Your task to perform on an android device: Search for "macbook" on ebay.com, select the first entry, and add it to the cart. Image 0: 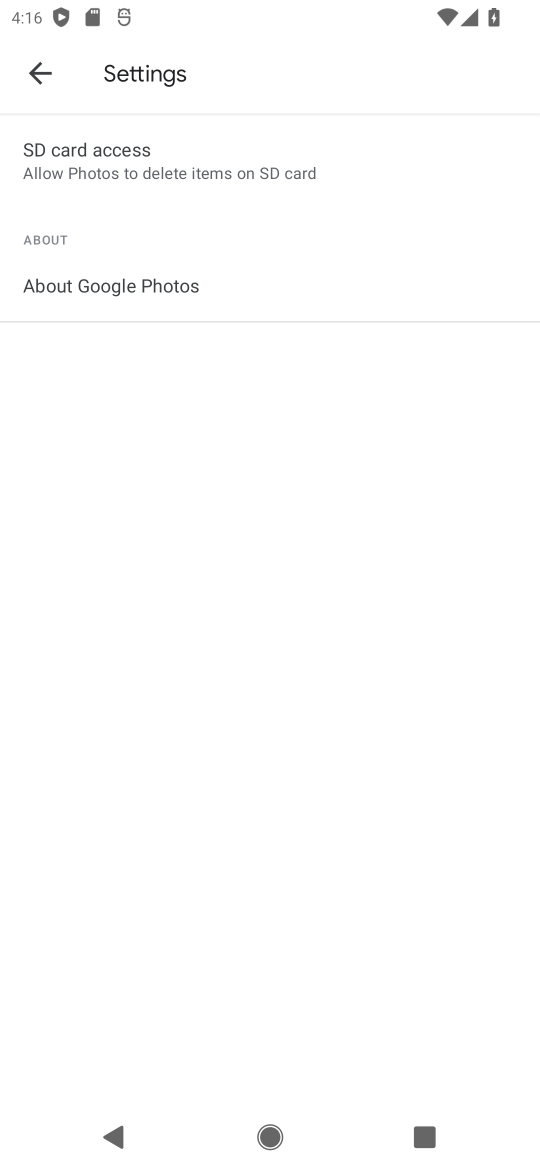
Step 0: press home button
Your task to perform on an android device: Search for "macbook" on ebay.com, select the first entry, and add it to the cart. Image 1: 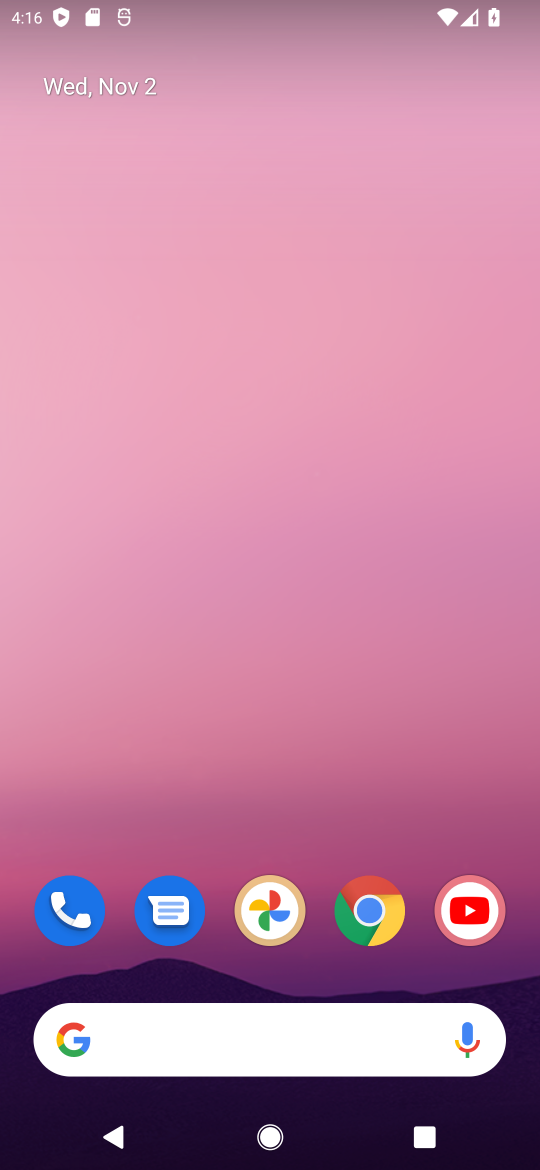
Step 1: click (371, 900)
Your task to perform on an android device: Search for "macbook" on ebay.com, select the first entry, and add it to the cart. Image 2: 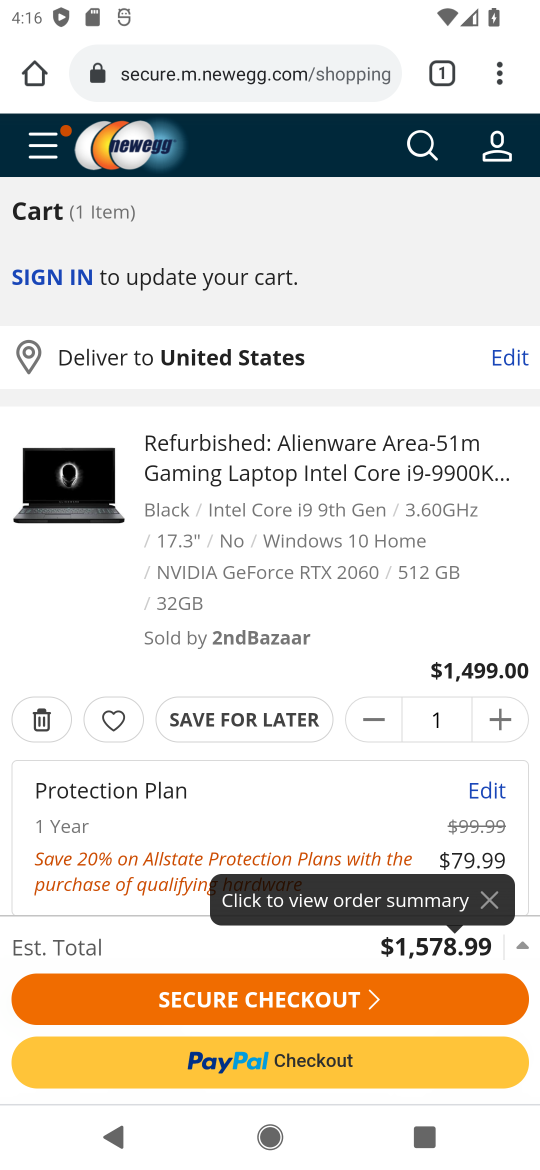
Step 2: click (238, 86)
Your task to perform on an android device: Search for "macbook" on ebay.com, select the first entry, and add it to the cart. Image 3: 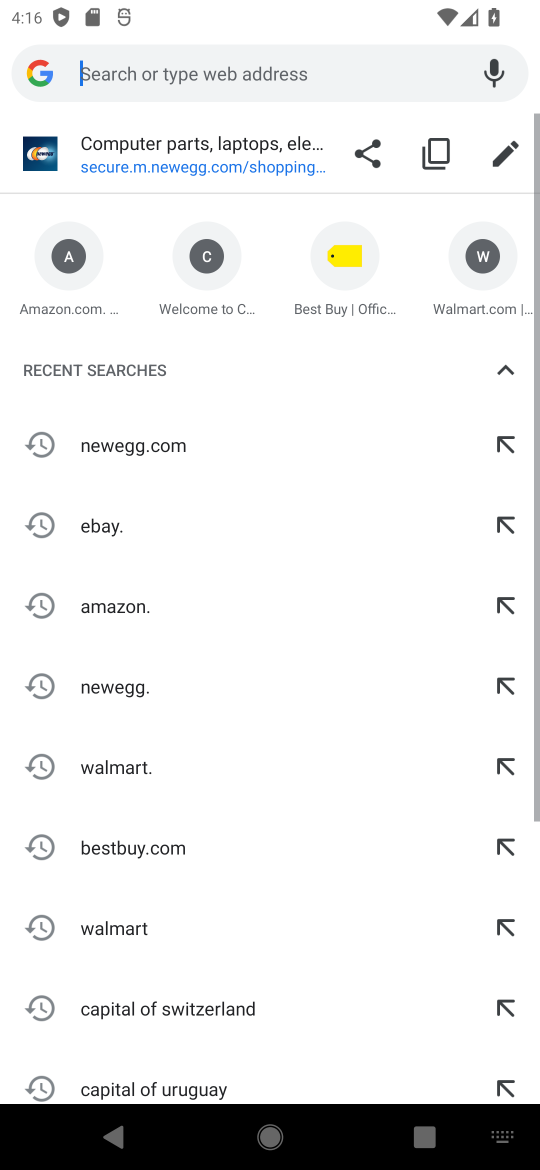
Step 3: type "ebay.com"
Your task to perform on an android device: Search for "macbook" on ebay.com, select the first entry, and add it to the cart. Image 4: 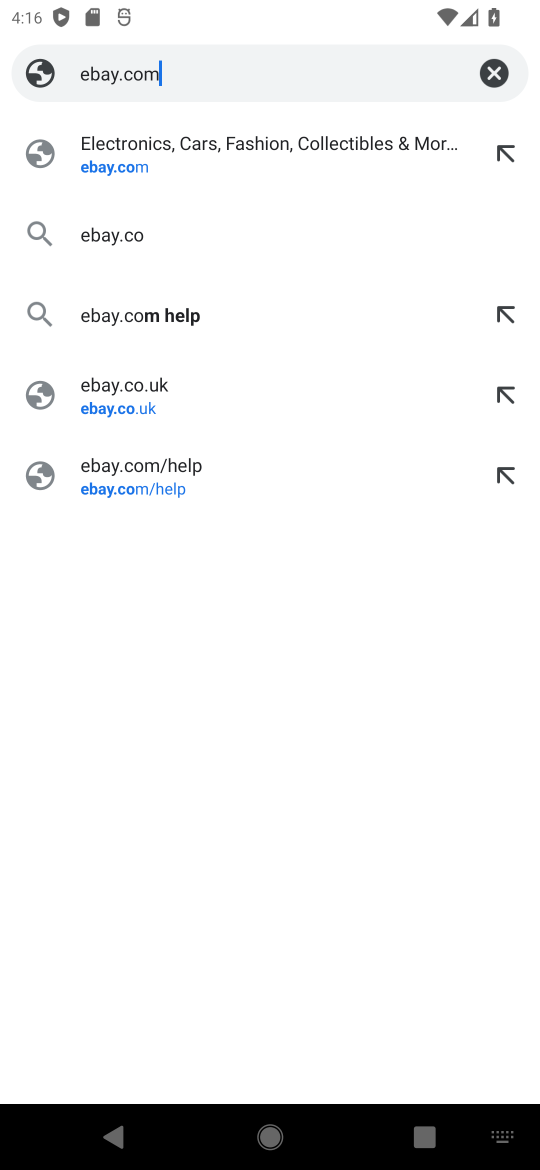
Step 4: type ""
Your task to perform on an android device: Search for "macbook" on ebay.com, select the first entry, and add it to the cart. Image 5: 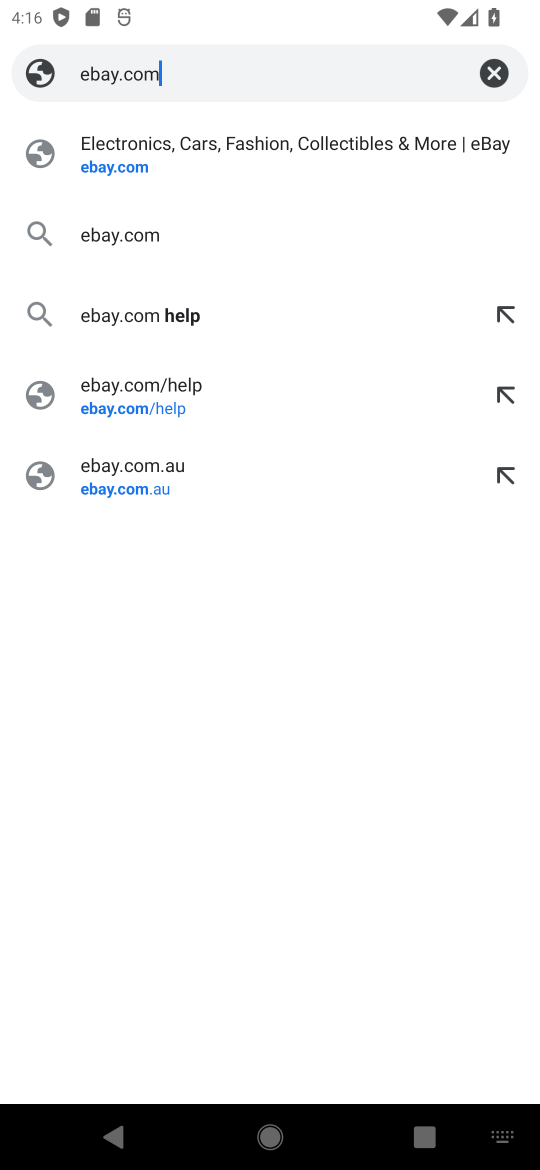
Step 5: click (105, 136)
Your task to perform on an android device: Search for "macbook" on ebay.com, select the first entry, and add it to the cart. Image 6: 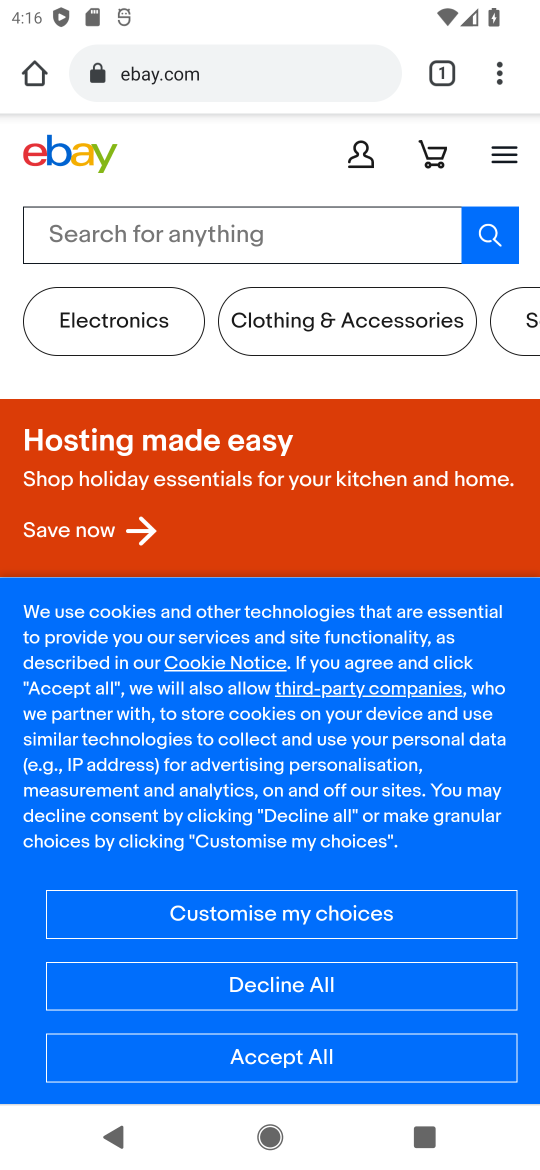
Step 6: click (331, 1063)
Your task to perform on an android device: Search for "macbook" on ebay.com, select the first entry, and add it to the cart. Image 7: 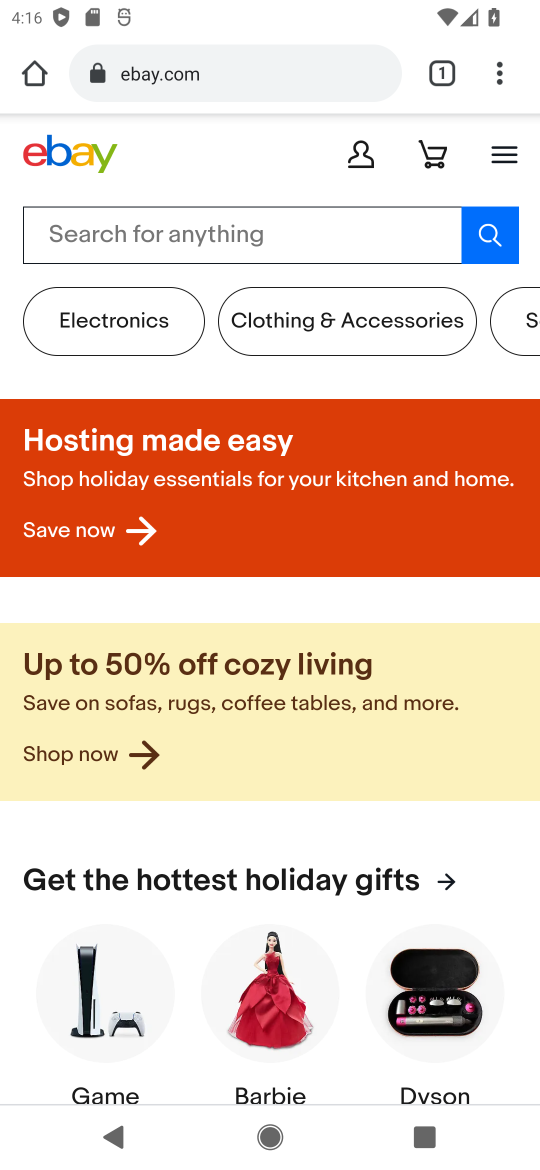
Step 7: click (278, 233)
Your task to perform on an android device: Search for "macbook" on ebay.com, select the first entry, and add it to the cart. Image 8: 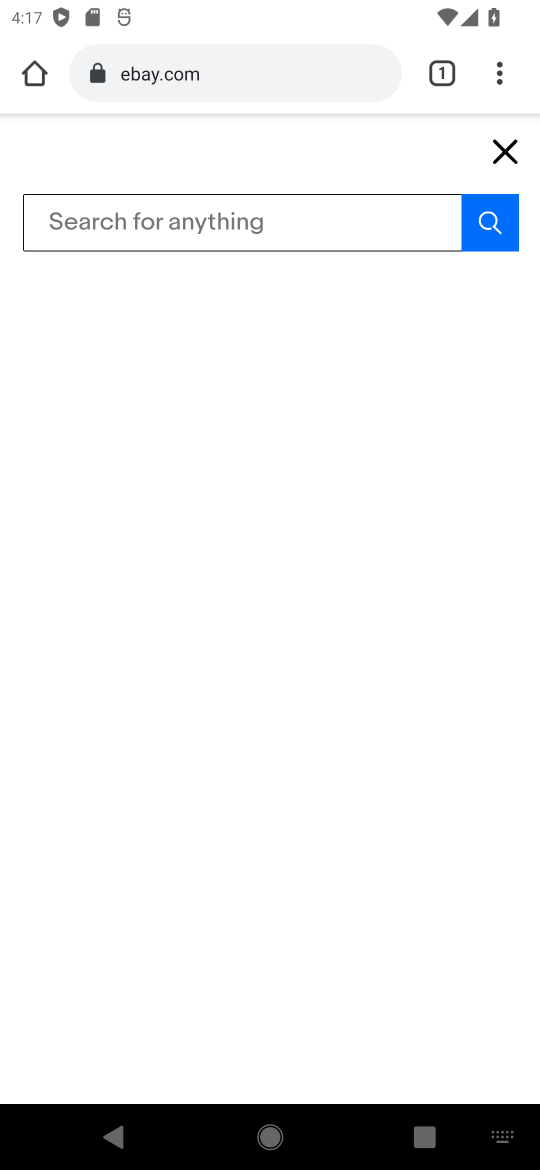
Step 8: type "macbook"
Your task to perform on an android device: Search for "macbook" on ebay.com, select the first entry, and add it to the cart. Image 9: 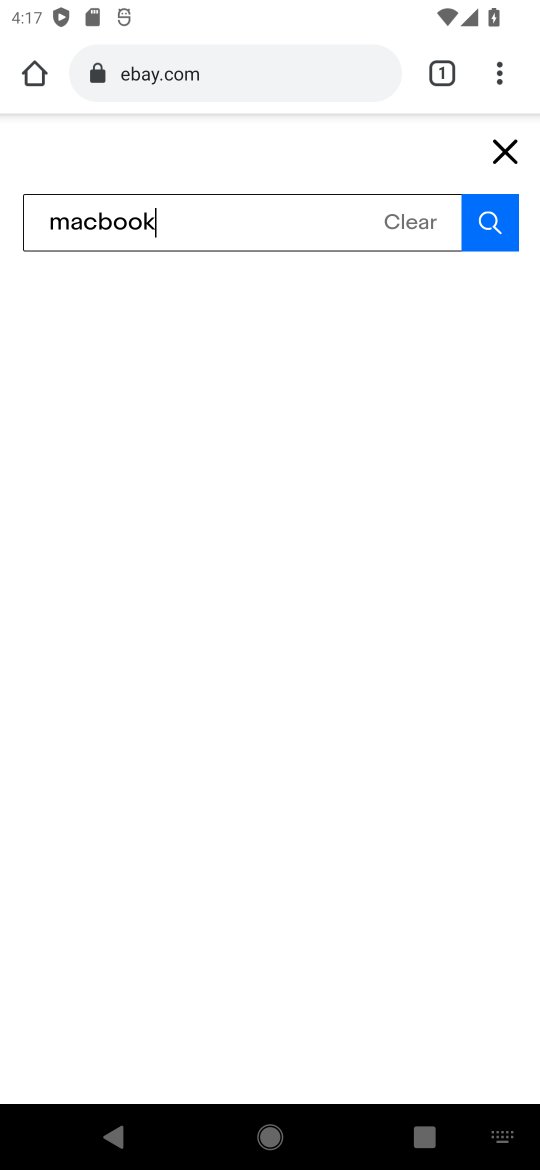
Step 9: type ""
Your task to perform on an android device: Search for "macbook" on ebay.com, select the first entry, and add it to the cart. Image 10: 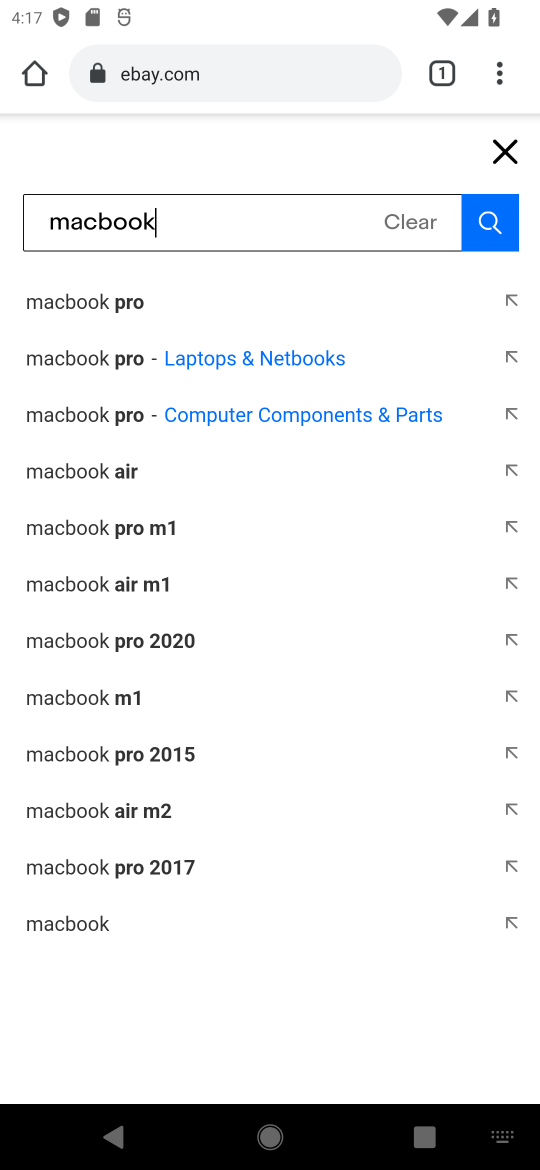
Step 10: press enter
Your task to perform on an android device: Search for "macbook" on ebay.com, select the first entry, and add it to the cart. Image 11: 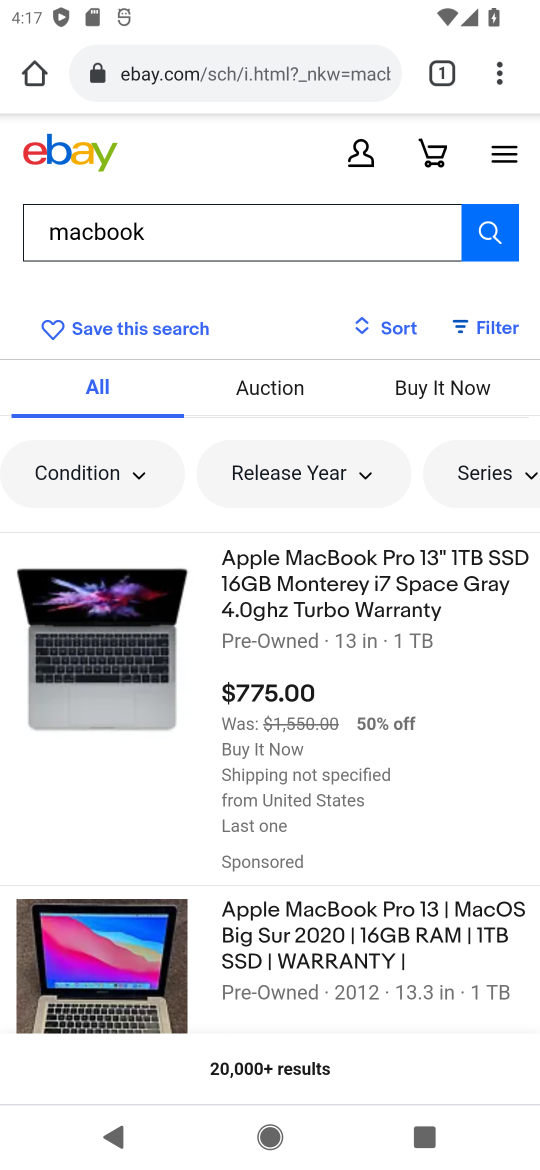
Step 11: click (378, 585)
Your task to perform on an android device: Search for "macbook" on ebay.com, select the first entry, and add it to the cart. Image 12: 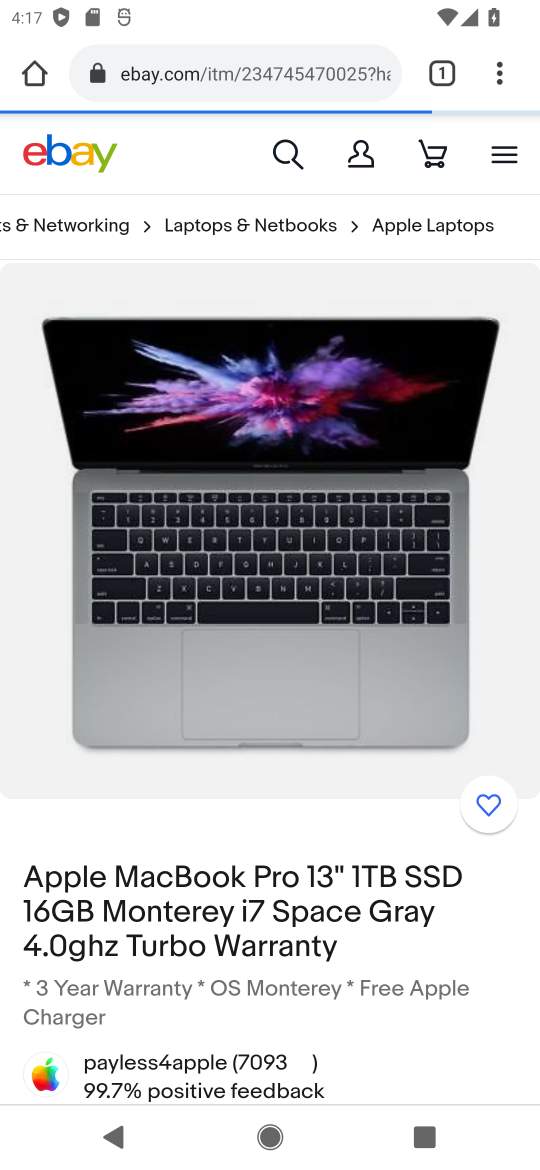
Step 12: drag from (399, 516) to (403, 396)
Your task to perform on an android device: Search for "macbook" on ebay.com, select the first entry, and add it to the cart. Image 13: 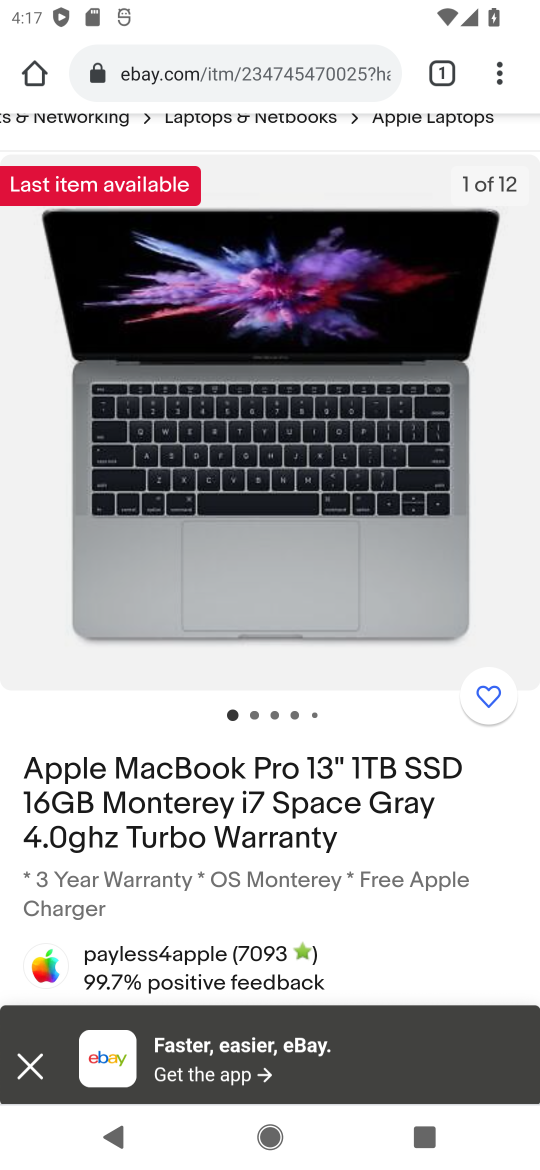
Step 13: drag from (341, 846) to (413, 545)
Your task to perform on an android device: Search for "macbook" on ebay.com, select the first entry, and add it to the cart. Image 14: 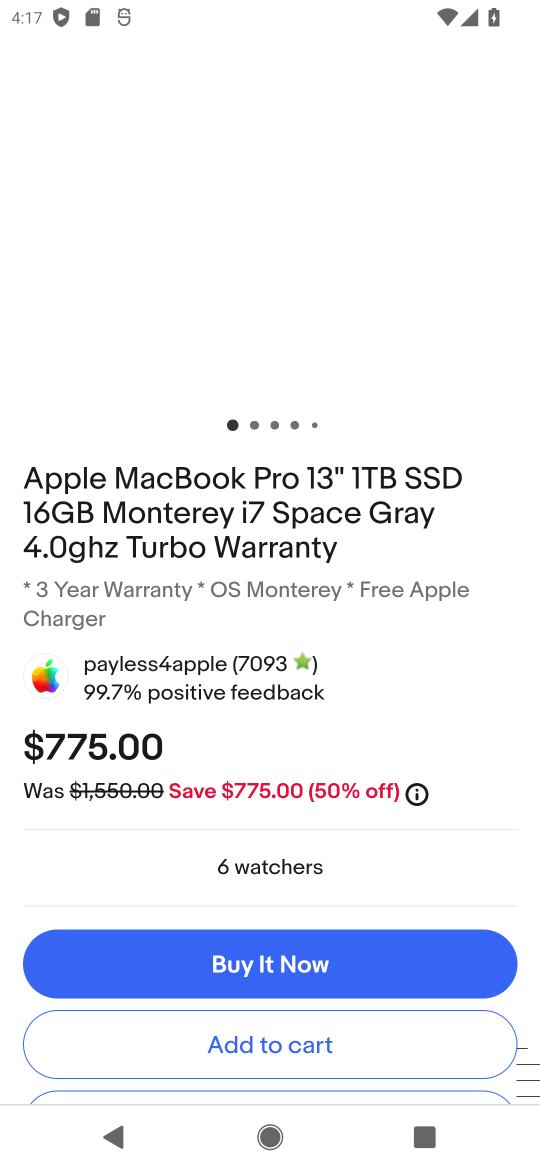
Step 14: click (313, 948)
Your task to perform on an android device: Search for "macbook" on ebay.com, select the first entry, and add it to the cart. Image 15: 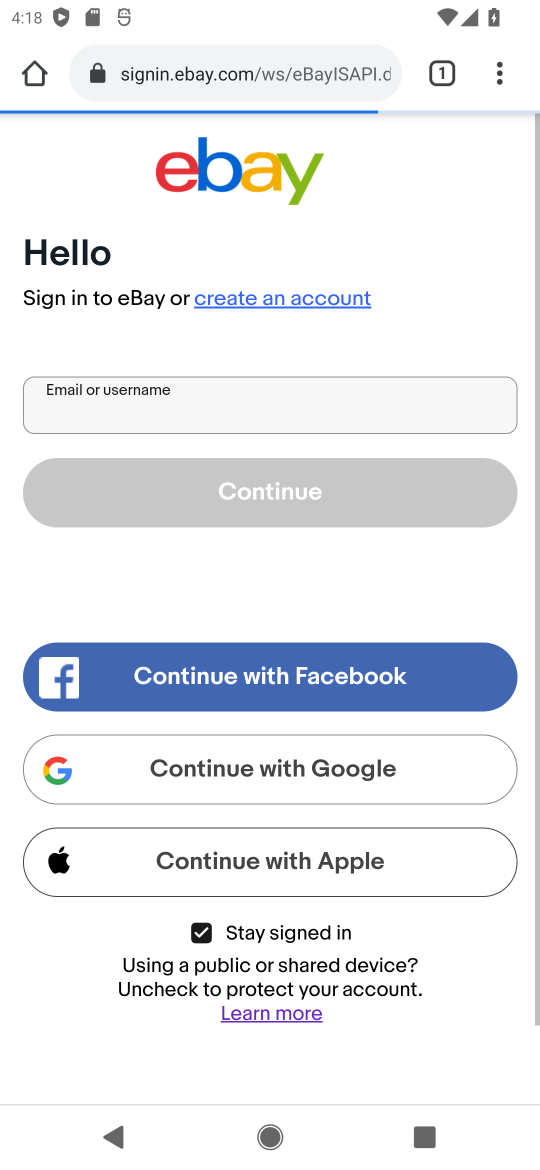
Step 15: click (48, 1056)
Your task to perform on an android device: Search for "macbook" on ebay.com, select the first entry, and add it to the cart. Image 16: 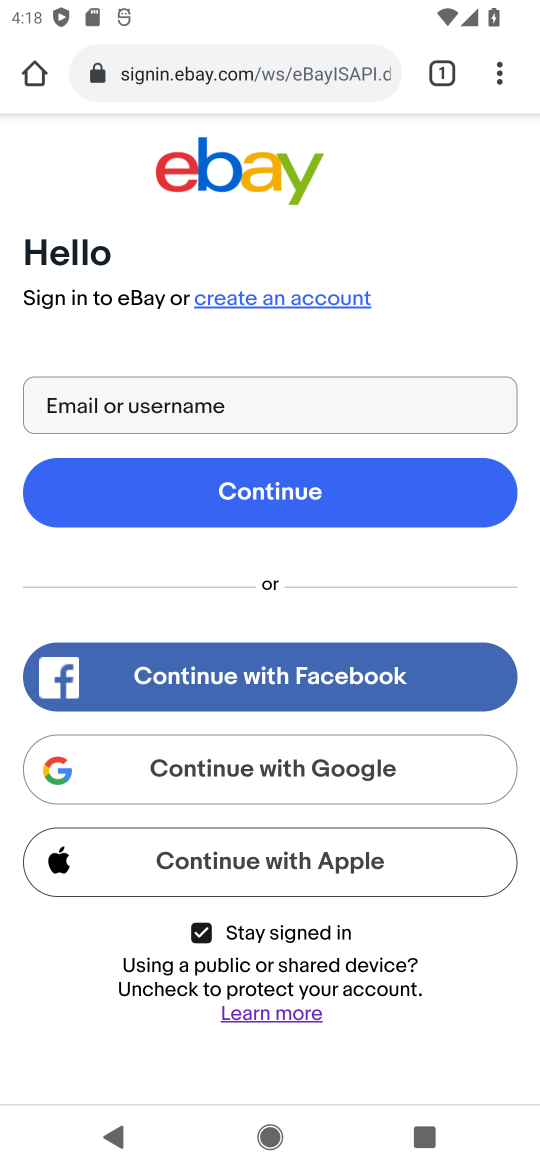
Step 16: drag from (312, 670) to (372, 261)
Your task to perform on an android device: Search for "macbook" on ebay.com, select the first entry, and add it to the cart. Image 17: 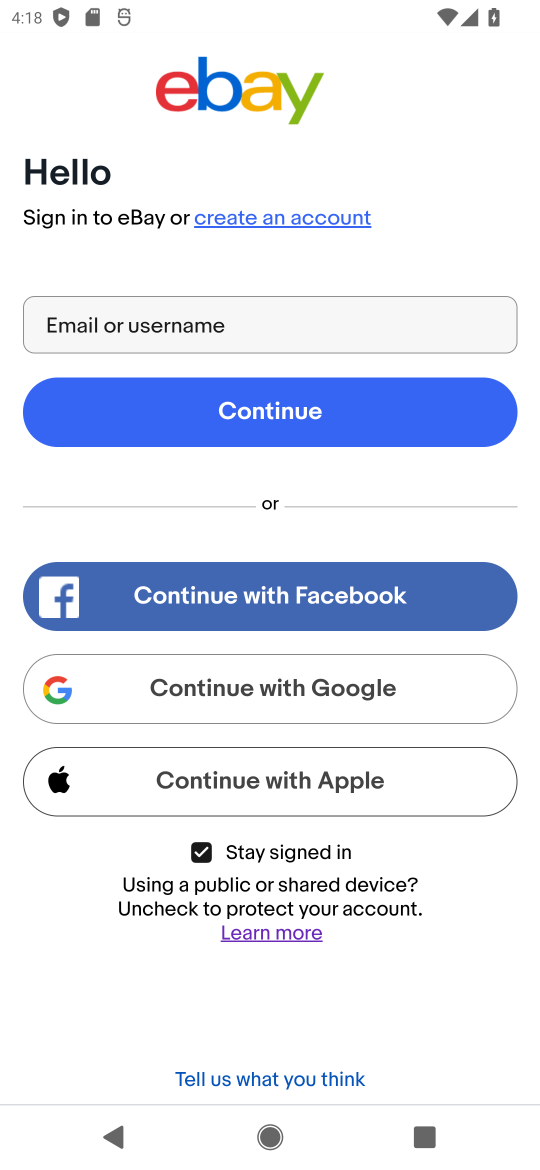
Step 17: drag from (314, 551) to (299, 877)
Your task to perform on an android device: Search for "macbook" on ebay.com, select the first entry, and add it to the cart. Image 18: 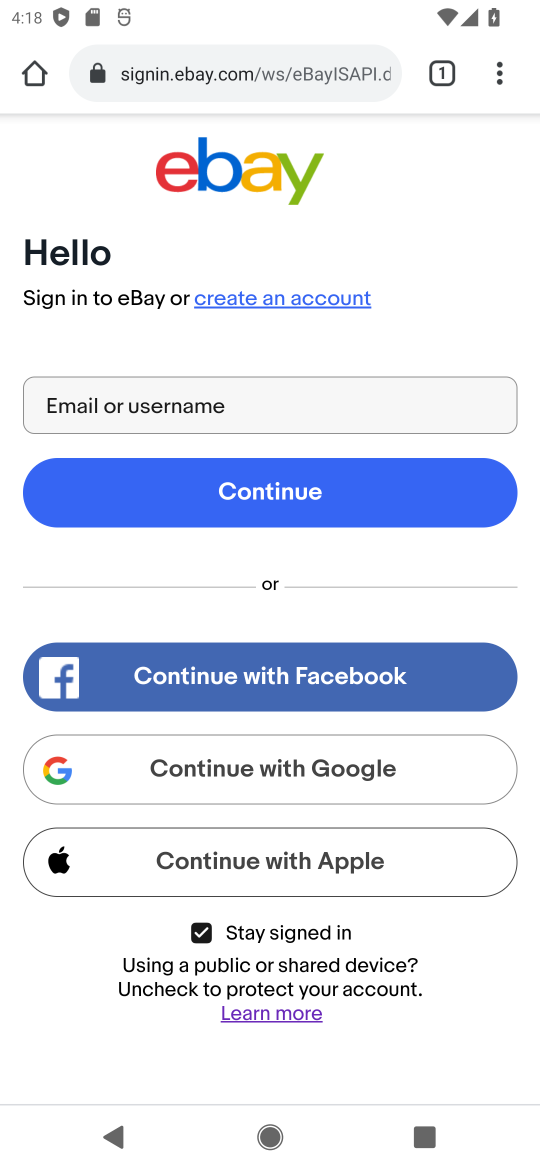
Step 18: drag from (160, 343) to (184, 596)
Your task to perform on an android device: Search for "macbook" on ebay.com, select the first entry, and add it to the cart. Image 19: 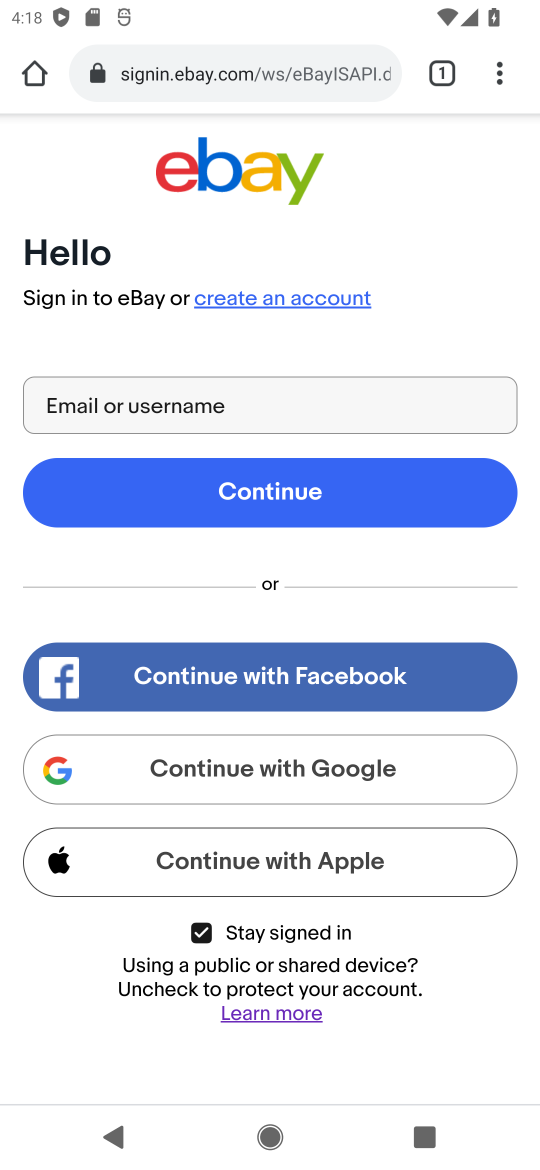
Step 19: press back button
Your task to perform on an android device: Search for "macbook" on ebay.com, select the first entry, and add it to the cart. Image 20: 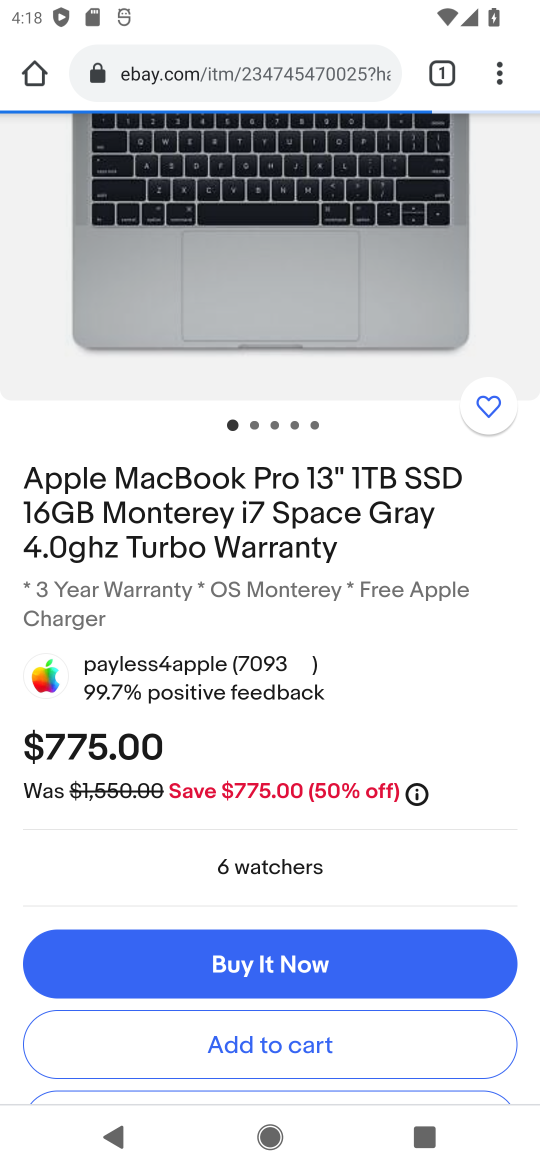
Step 20: drag from (203, 673) to (228, 265)
Your task to perform on an android device: Search for "macbook" on ebay.com, select the first entry, and add it to the cart. Image 21: 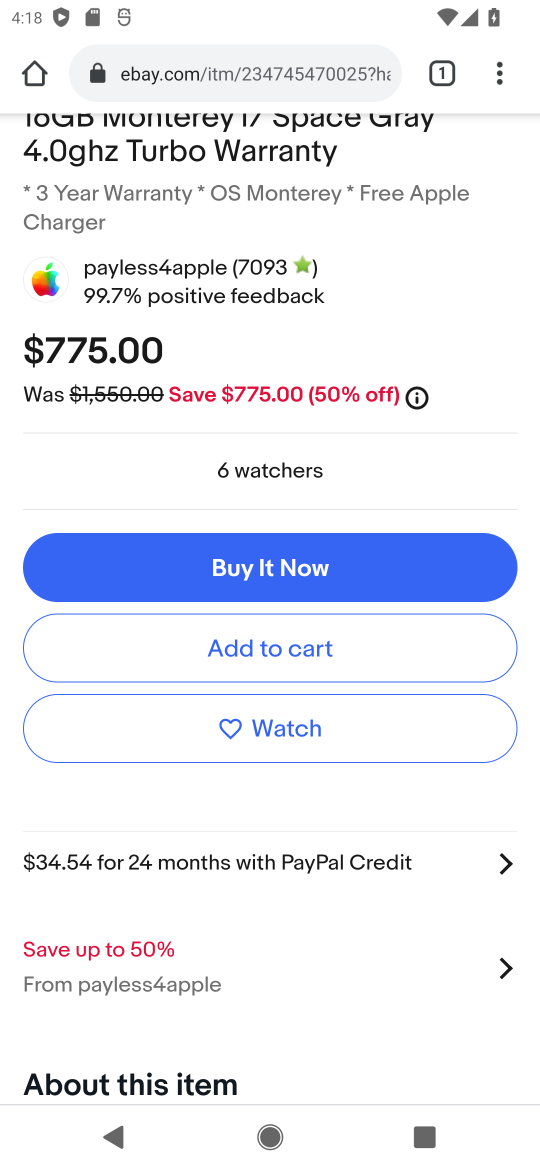
Step 21: click (232, 657)
Your task to perform on an android device: Search for "macbook" on ebay.com, select the first entry, and add it to the cart. Image 22: 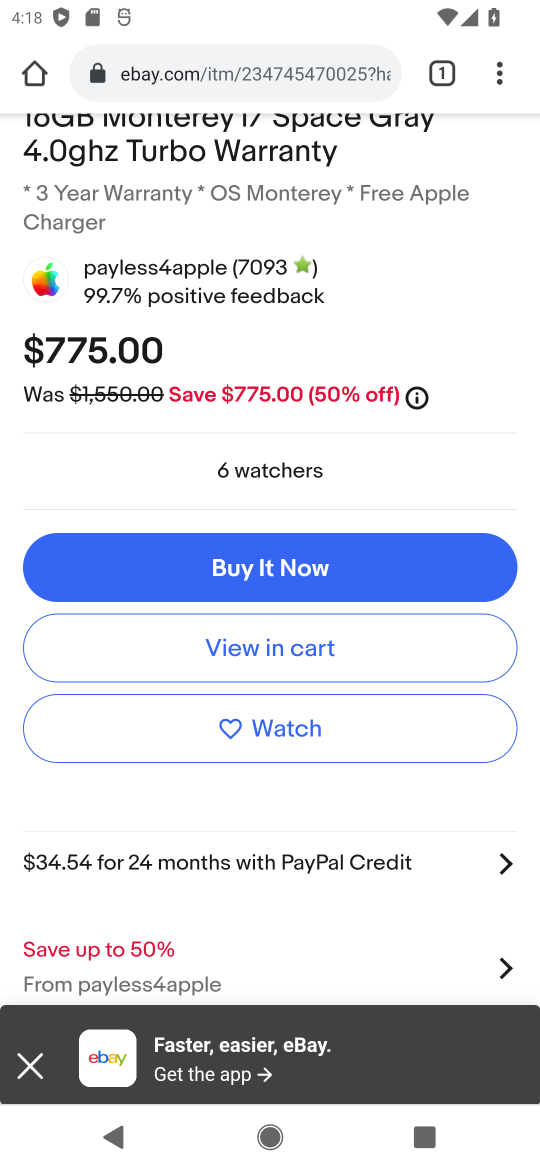
Step 22: click (232, 657)
Your task to perform on an android device: Search for "macbook" on ebay.com, select the first entry, and add it to the cart. Image 23: 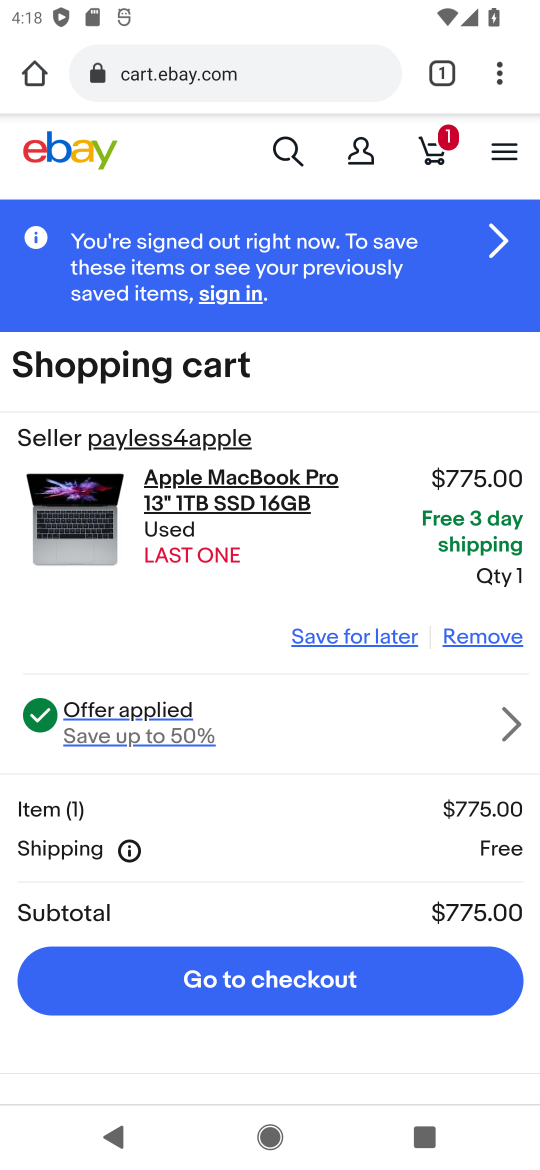
Step 23: click (445, 154)
Your task to perform on an android device: Search for "macbook" on ebay.com, select the first entry, and add it to the cart. Image 24: 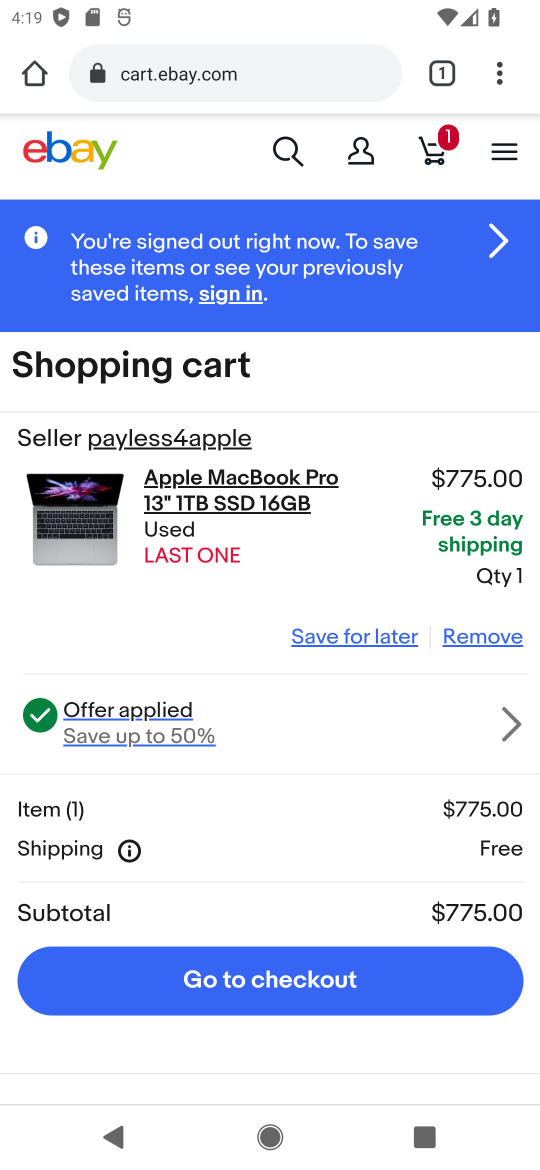
Step 24: click (343, 992)
Your task to perform on an android device: Search for "macbook" on ebay.com, select the first entry, and add it to the cart. Image 25: 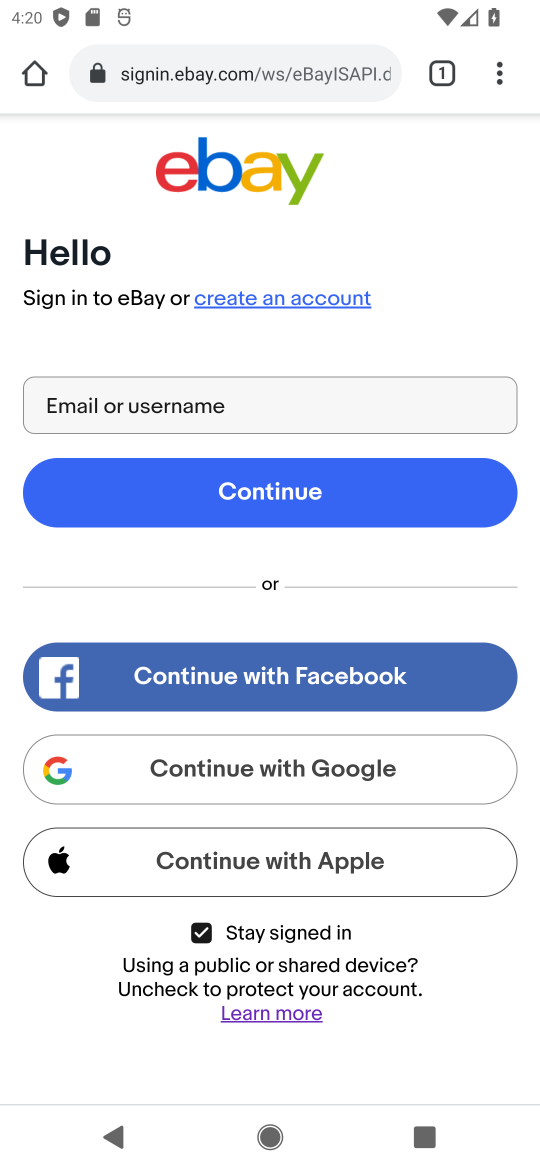
Step 25: task complete